Your task to perform on an android device: check google app version Image 0: 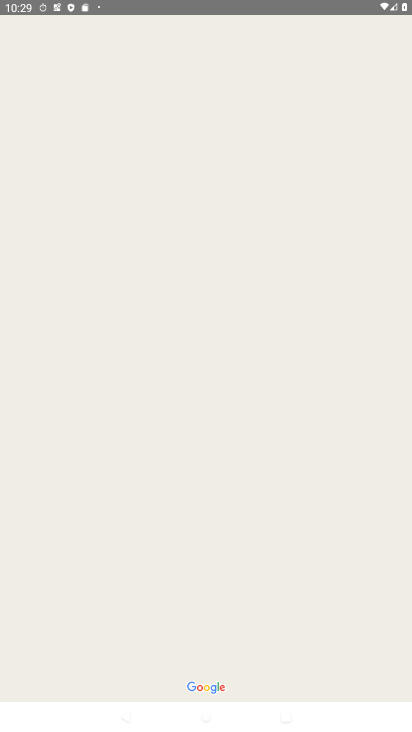
Step 0: press home button
Your task to perform on an android device: check google app version Image 1: 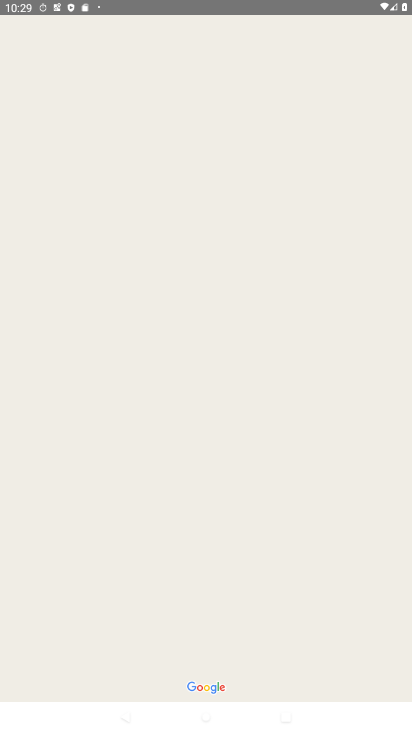
Step 1: click (152, 622)
Your task to perform on an android device: check google app version Image 2: 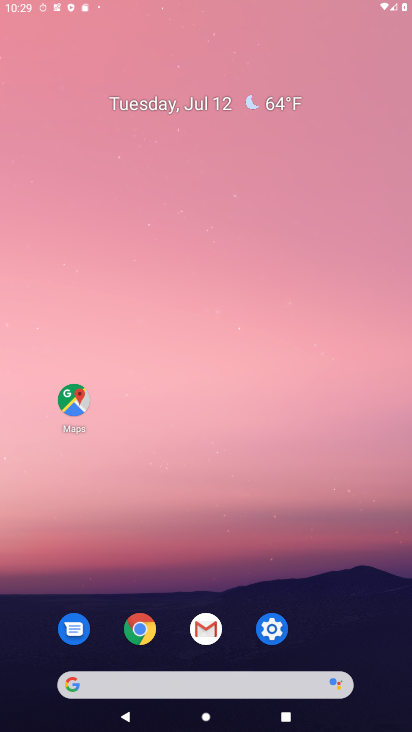
Step 2: click (405, 59)
Your task to perform on an android device: check google app version Image 3: 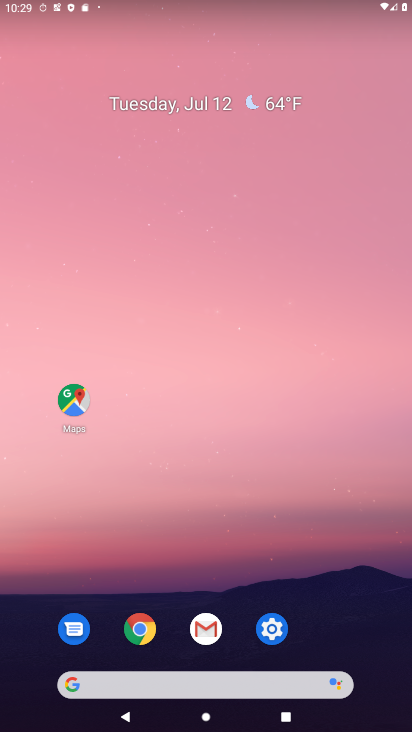
Step 3: click (140, 638)
Your task to perform on an android device: check google app version Image 4: 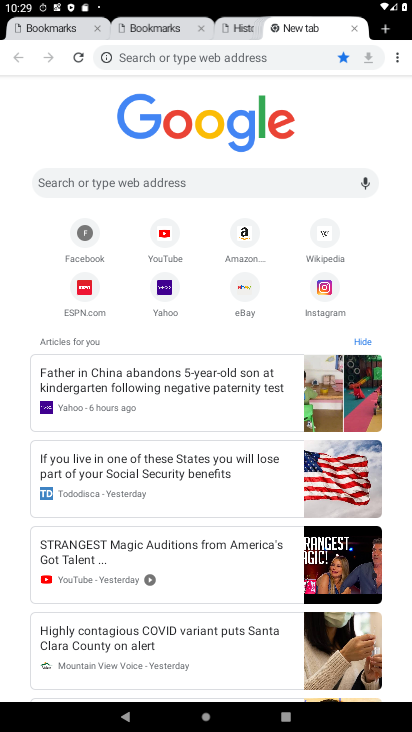
Step 4: click (397, 54)
Your task to perform on an android device: check google app version Image 5: 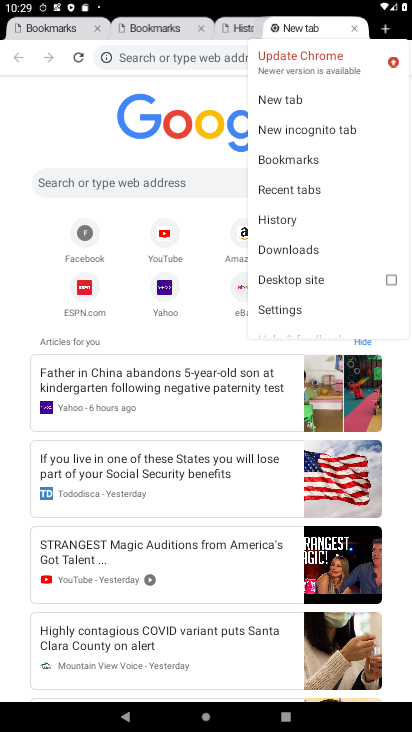
Step 5: click (276, 302)
Your task to perform on an android device: check google app version Image 6: 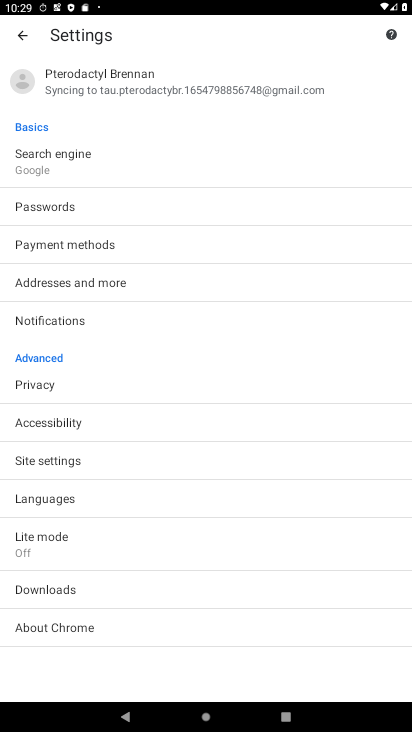
Step 6: click (52, 462)
Your task to perform on an android device: check google app version Image 7: 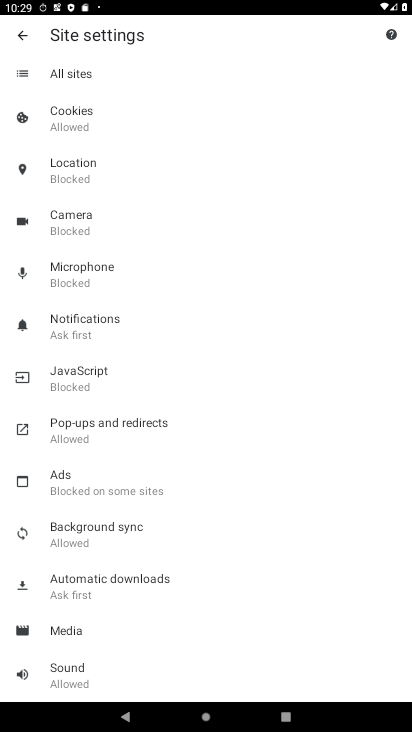
Step 7: click (95, 434)
Your task to perform on an android device: check google app version Image 8: 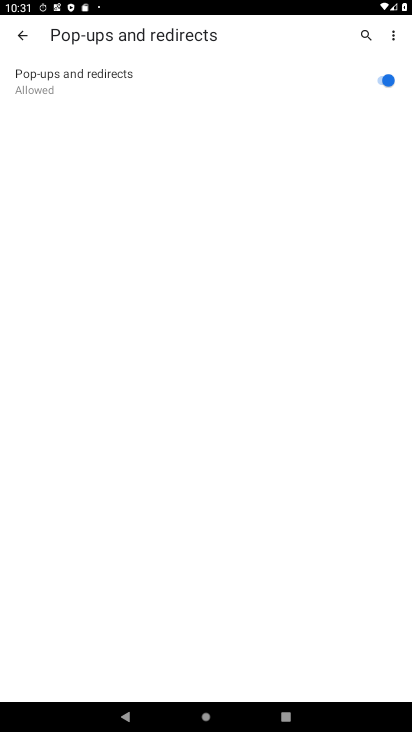
Step 8: task complete